Your task to perform on an android device: turn on sleep mode Image 0: 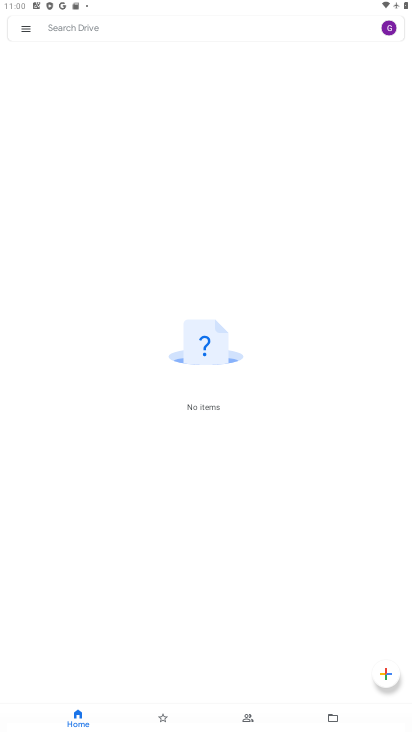
Step 0: press home button
Your task to perform on an android device: turn on sleep mode Image 1: 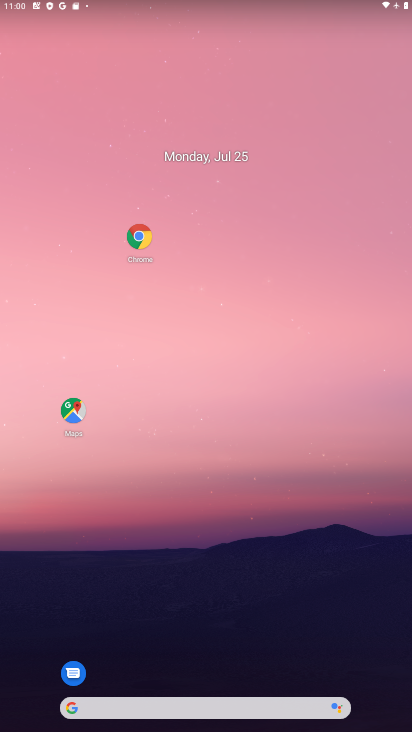
Step 1: drag from (216, 659) to (228, 91)
Your task to perform on an android device: turn on sleep mode Image 2: 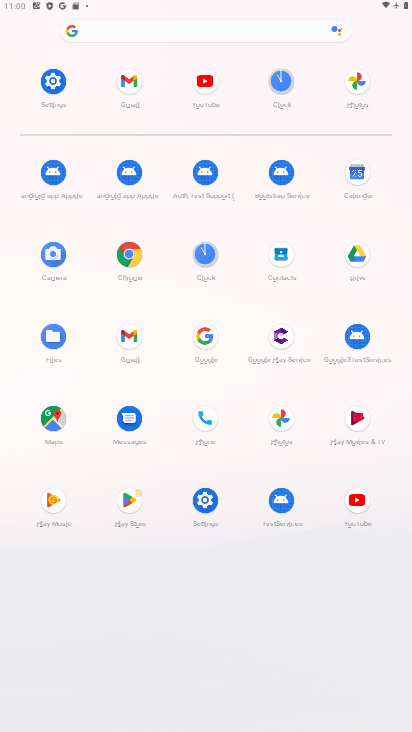
Step 2: click (61, 102)
Your task to perform on an android device: turn on sleep mode Image 3: 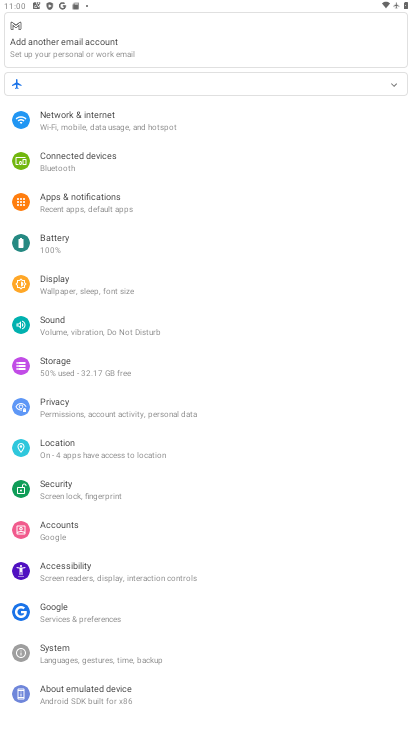
Step 3: click (108, 287)
Your task to perform on an android device: turn on sleep mode Image 4: 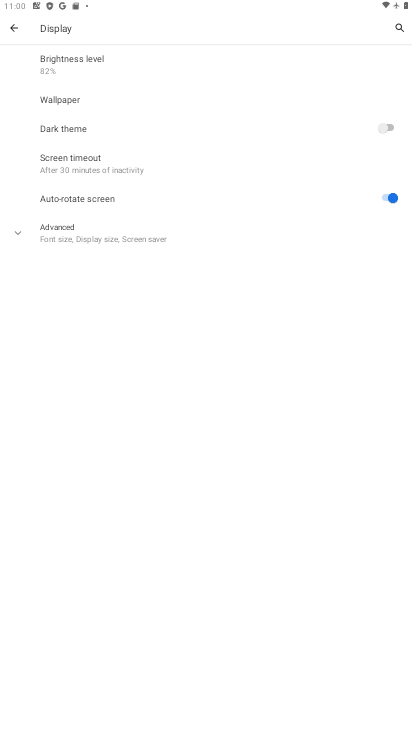
Step 4: click (151, 243)
Your task to perform on an android device: turn on sleep mode Image 5: 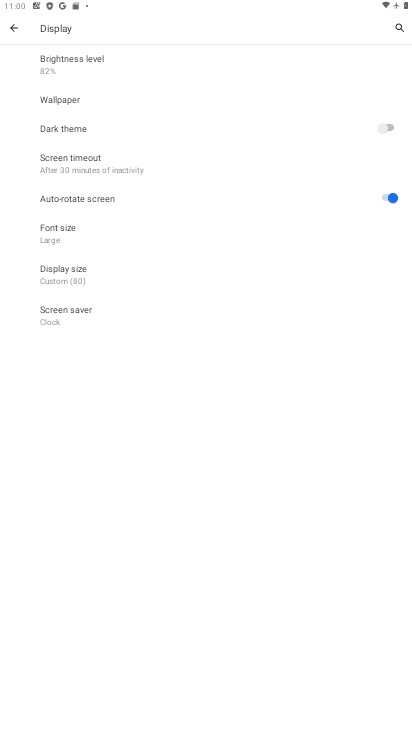
Step 5: task complete